Your task to perform on an android device: Open Google Maps and go to "Timeline" Image 0: 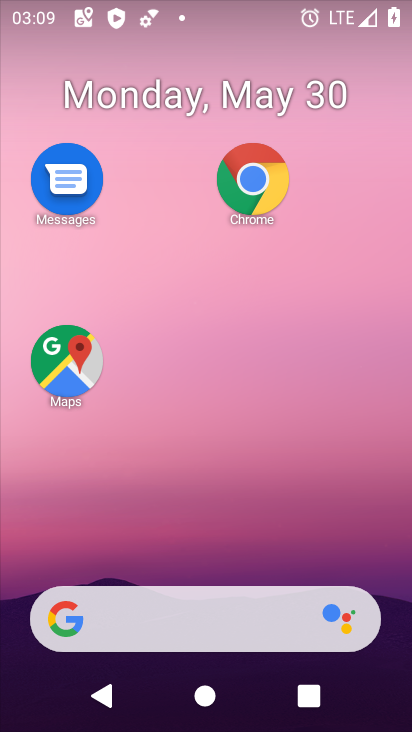
Step 0: drag from (274, 554) to (243, 498)
Your task to perform on an android device: Open Google Maps and go to "Timeline" Image 1: 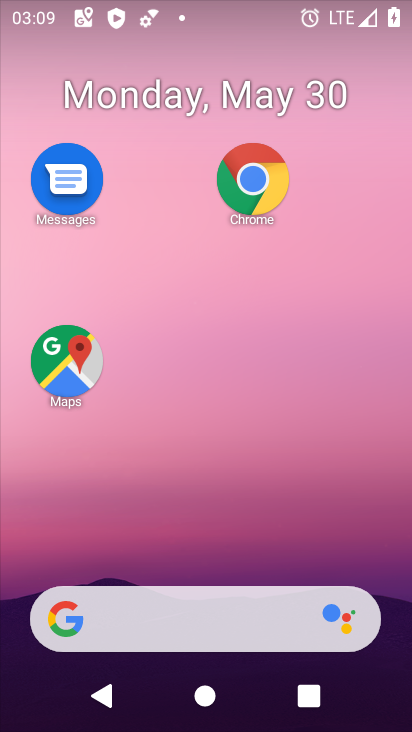
Step 1: click (84, 362)
Your task to perform on an android device: Open Google Maps and go to "Timeline" Image 2: 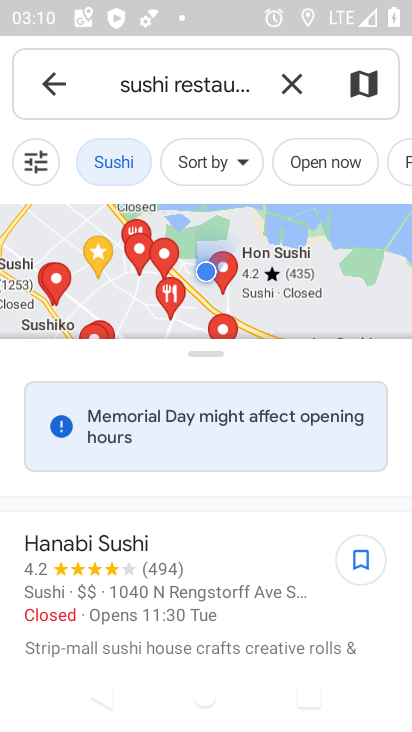
Step 2: click (289, 81)
Your task to perform on an android device: Open Google Maps and go to "Timeline" Image 3: 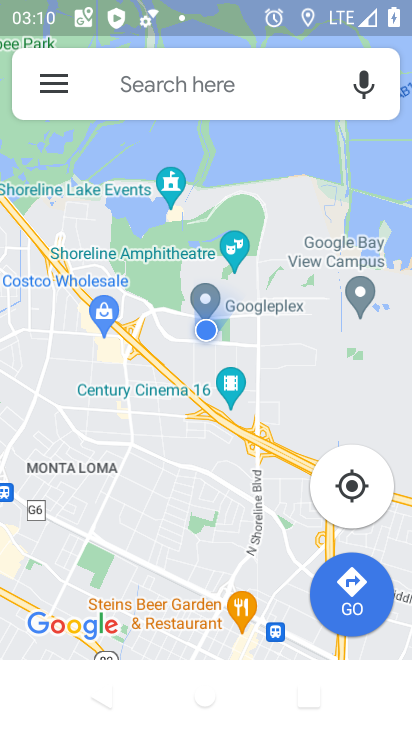
Step 3: click (41, 80)
Your task to perform on an android device: Open Google Maps and go to "Timeline" Image 4: 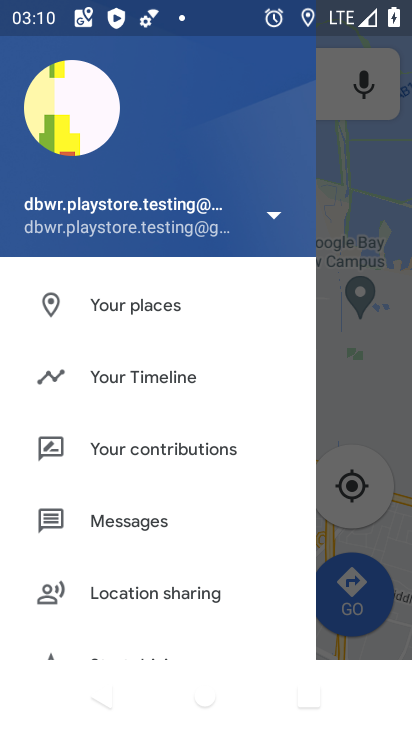
Step 4: click (176, 376)
Your task to perform on an android device: Open Google Maps and go to "Timeline" Image 5: 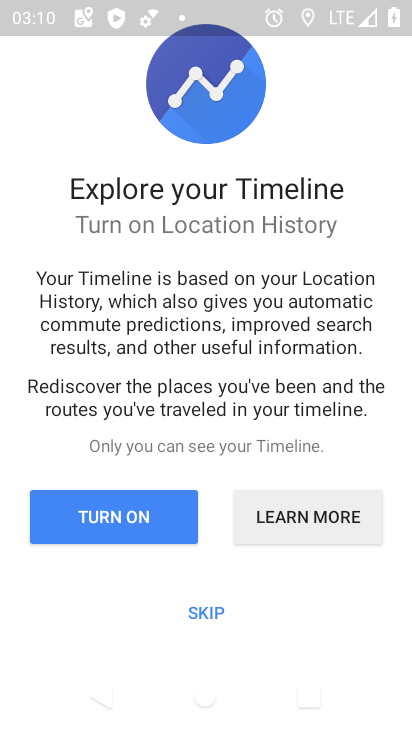
Step 5: click (216, 608)
Your task to perform on an android device: Open Google Maps and go to "Timeline" Image 6: 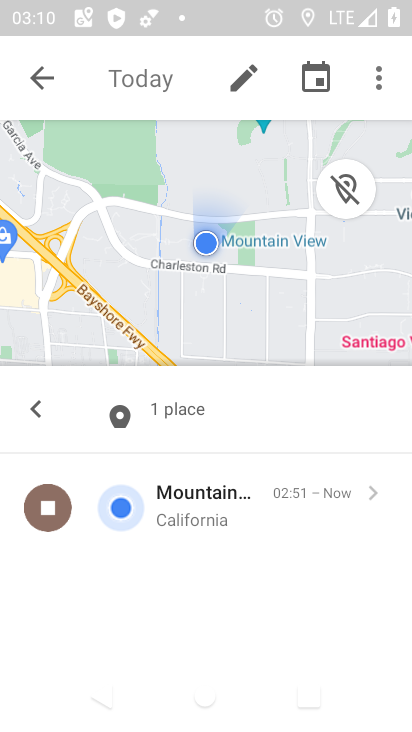
Step 6: task complete